Your task to perform on an android device: see creations saved in the google photos Image 0: 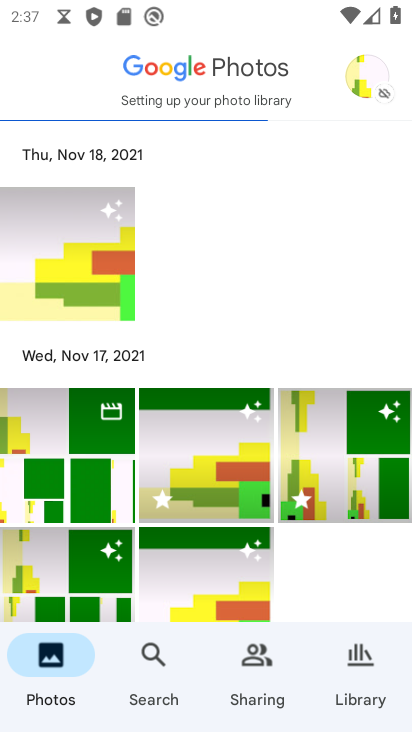
Step 0: press home button
Your task to perform on an android device: see creations saved in the google photos Image 1: 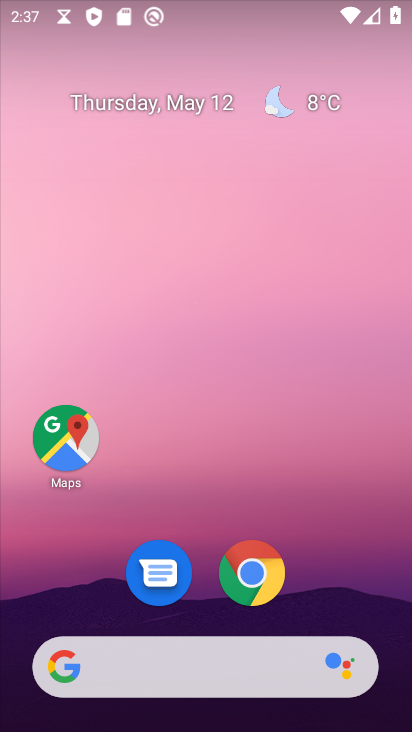
Step 1: drag from (338, 584) to (315, 50)
Your task to perform on an android device: see creations saved in the google photos Image 2: 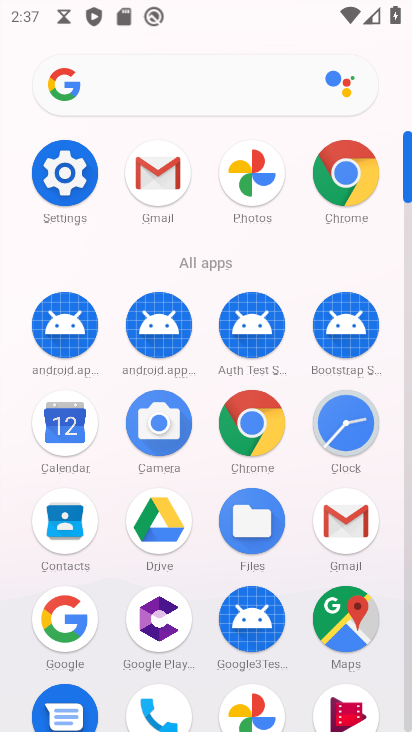
Step 2: click (251, 708)
Your task to perform on an android device: see creations saved in the google photos Image 3: 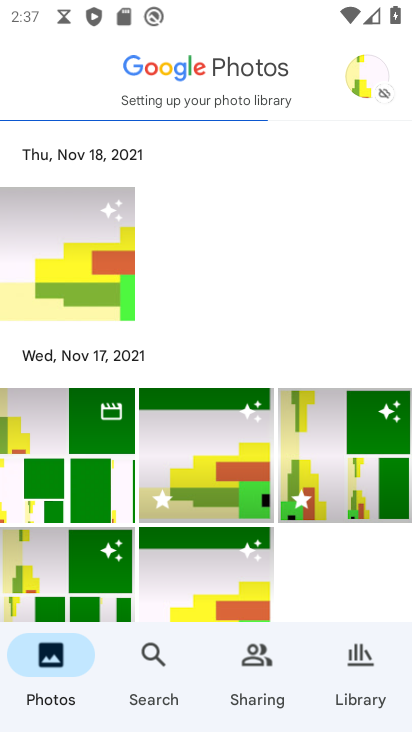
Step 3: click (156, 650)
Your task to perform on an android device: see creations saved in the google photos Image 4: 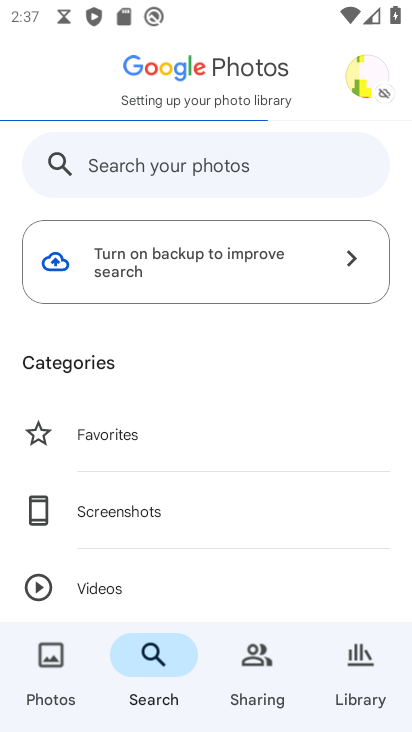
Step 4: click (120, 148)
Your task to perform on an android device: see creations saved in the google photos Image 5: 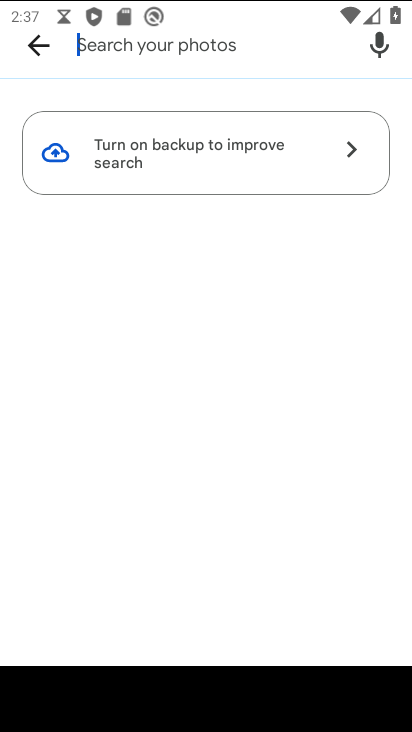
Step 5: click (46, 42)
Your task to perform on an android device: see creations saved in the google photos Image 6: 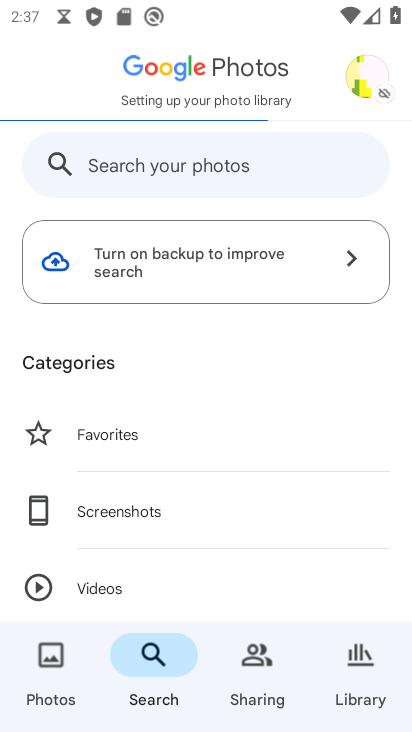
Step 6: drag from (297, 517) to (303, 220)
Your task to perform on an android device: see creations saved in the google photos Image 7: 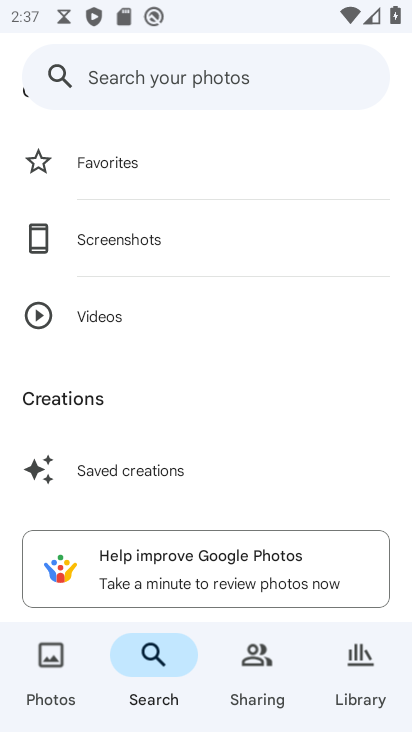
Step 7: click (56, 395)
Your task to perform on an android device: see creations saved in the google photos Image 8: 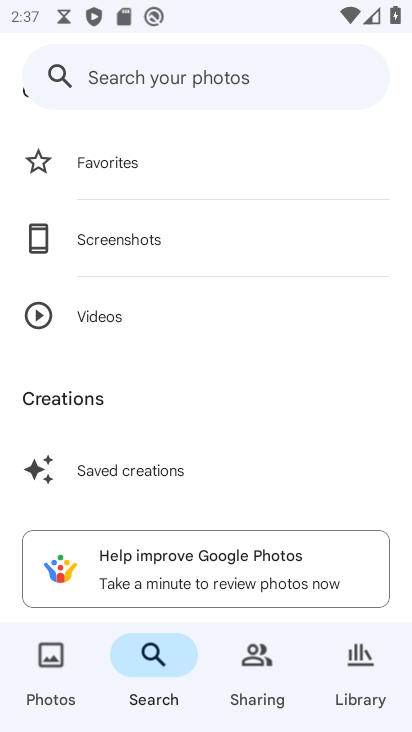
Step 8: click (109, 464)
Your task to perform on an android device: see creations saved in the google photos Image 9: 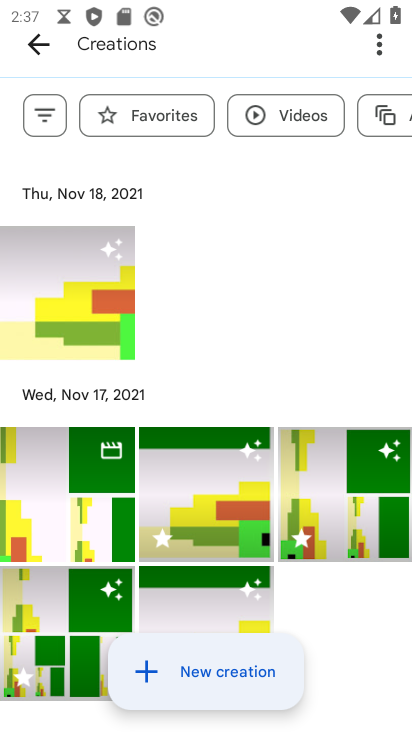
Step 9: task complete